Your task to perform on an android device: Open the map Image 0: 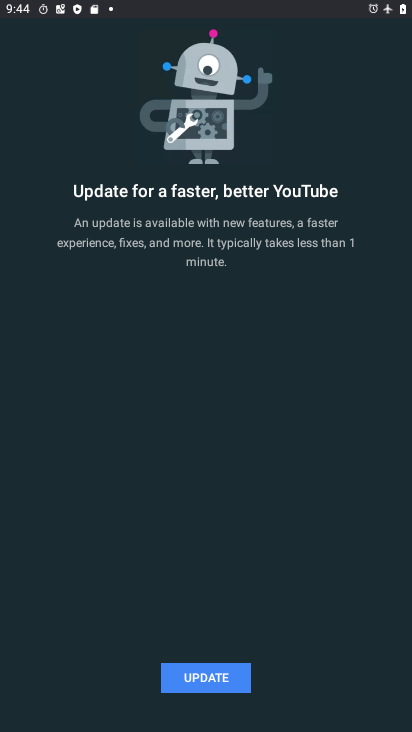
Step 0: press back button
Your task to perform on an android device: Open the map Image 1: 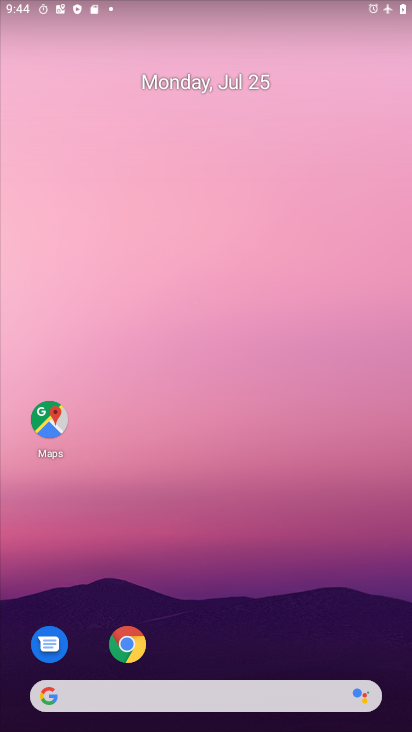
Step 1: drag from (251, 600) to (275, 130)
Your task to perform on an android device: Open the map Image 2: 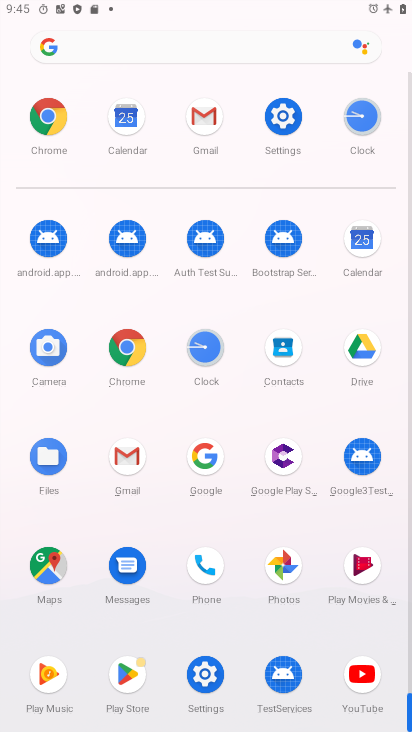
Step 2: click (47, 564)
Your task to perform on an android device: Open the map Image 3: 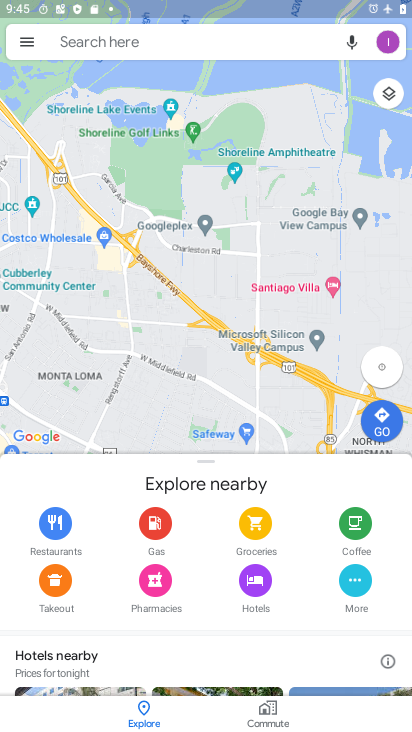
Step 3: task complete